Your task to perform on an android device: search for starred emails in the gmail app Image 0: 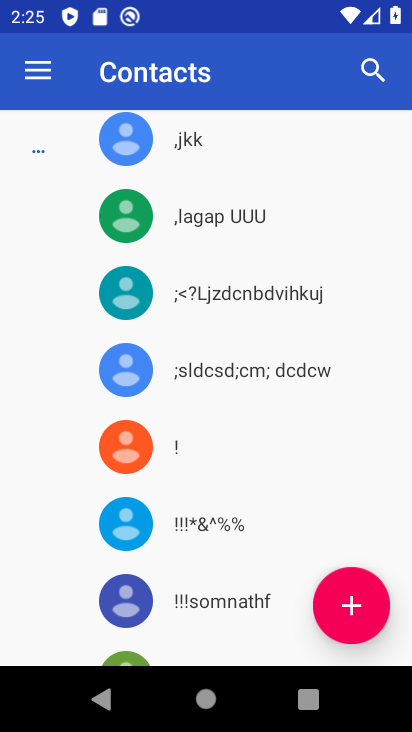
Step 0: press home button
Your task to perform on an android device: search for starred emails in the gmail app Image 1: 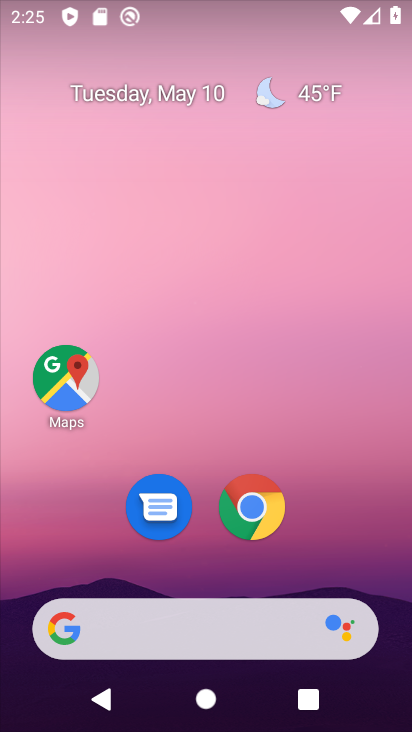
Step 1: drag from (205, 550) to (221, 181)
Your task to perform on an android device: search for starred emails in the gmail app Image 2: 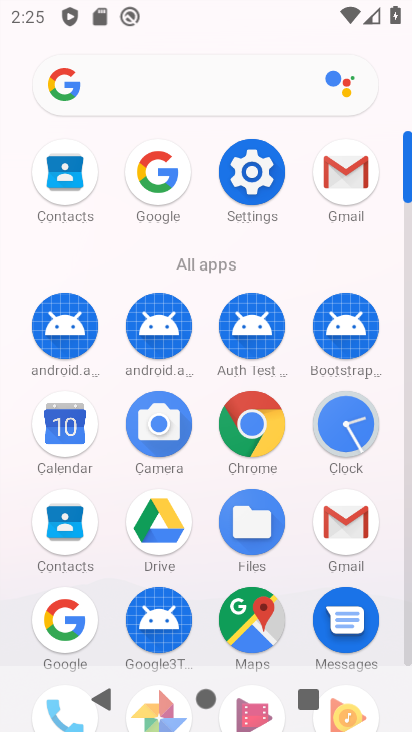
Step 2: click (338, 177)
Your task to perform on an android device: search for starred emails in the gmail app Image 3: 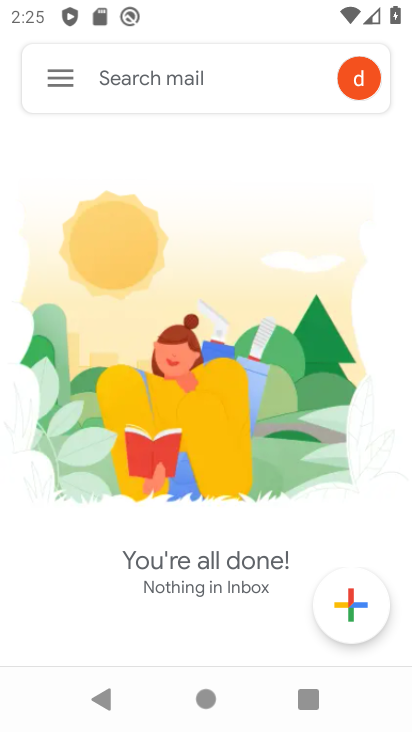
Step 3: click (65, 75)
Your task to perform on an android device: search for starred emails in the gmail app Image 4: 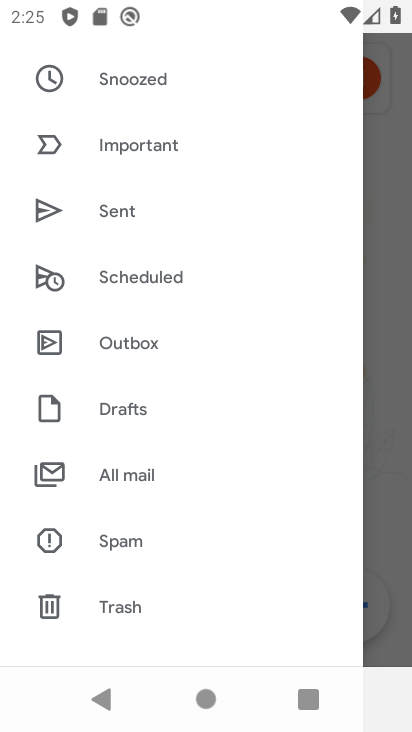
Step 4: drag from (149, 87) to (122, 520)
Your task to perform on an android device: search for starred emails in the gmail app Image 5: 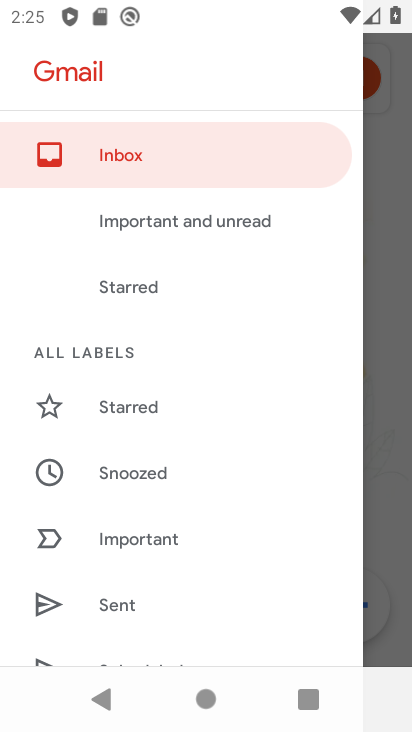
Step 5: click (137, 290)
Your task to perform on an android device: search for starred emails in the gmail app Image 6: 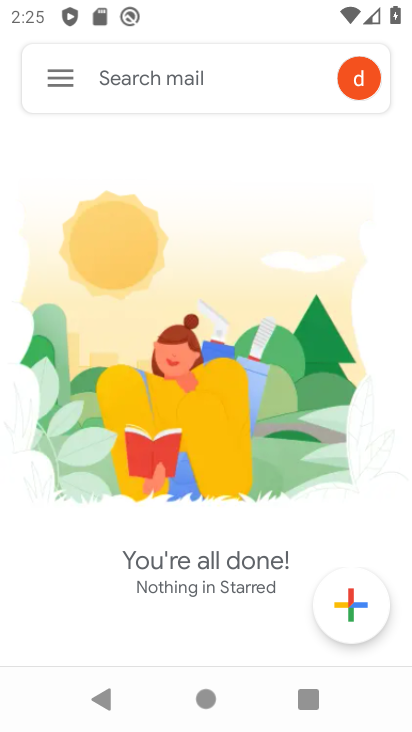
Step 6: task complete